Your task to perform on an android device: allow cookies in the chrome app Image 0: 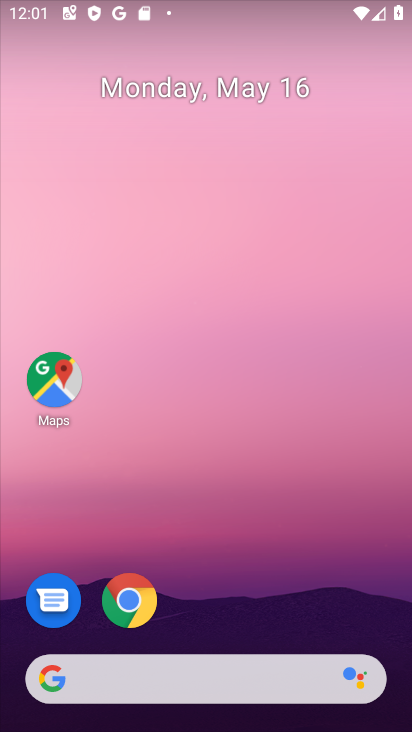
Step 0: click (142, 606)
Your task to perform on an android device: allow cookies in the chrome app Image 1: 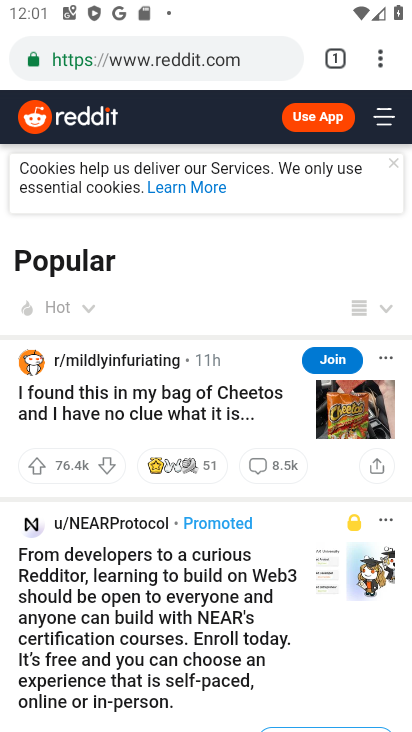
Step 1: drag from (374, 66) to (188, 631)
Your task to perform on an android device: allow cookies in the chrome app Image 2: 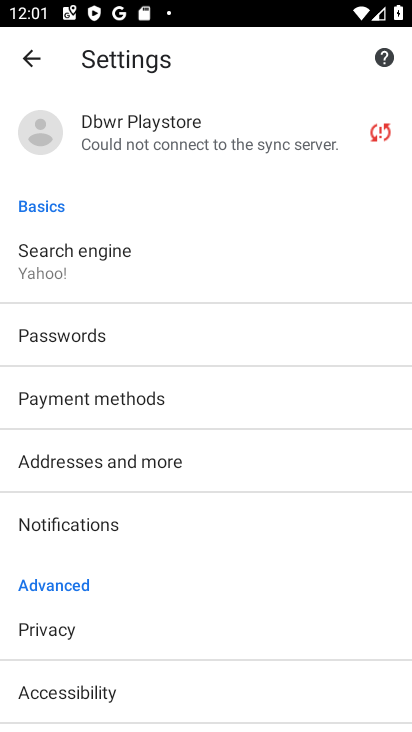
Step 2: drag from (86, 577) to (92, 53)
Your task to perform on an android device: allow cookies in the chrome app Image 3: 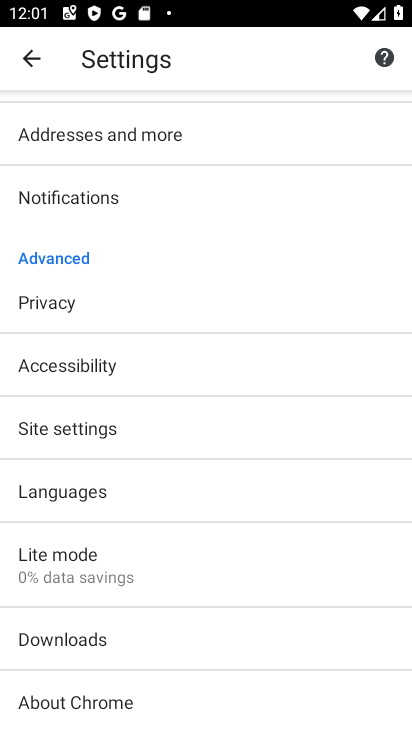
Step 3: click (59, 412)
Your task to perform on an android device: allow cookies in the chrome app Image 4: 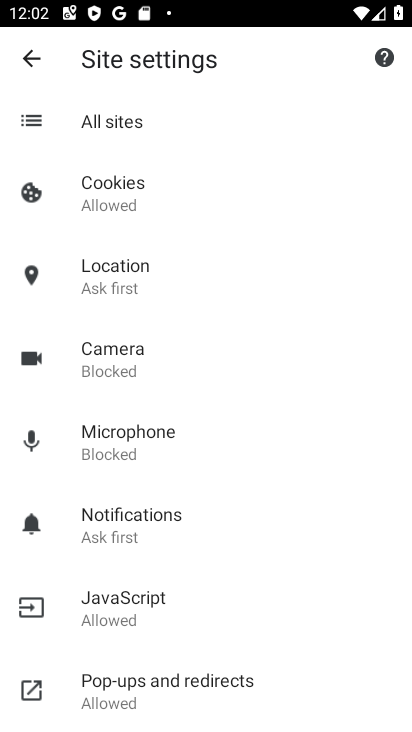
Step 4: click (115, 179)
Your task to perform on an android device: allow cookies in the chrome app Image 5: 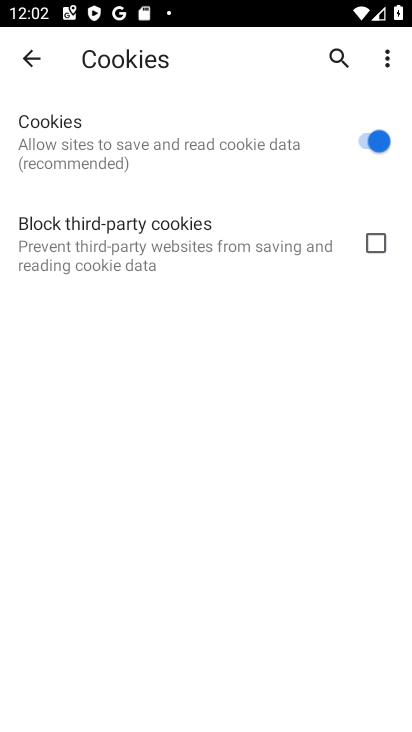
Step 5: task complete